Your task to perform on an android device: Go to Maps Image 0: 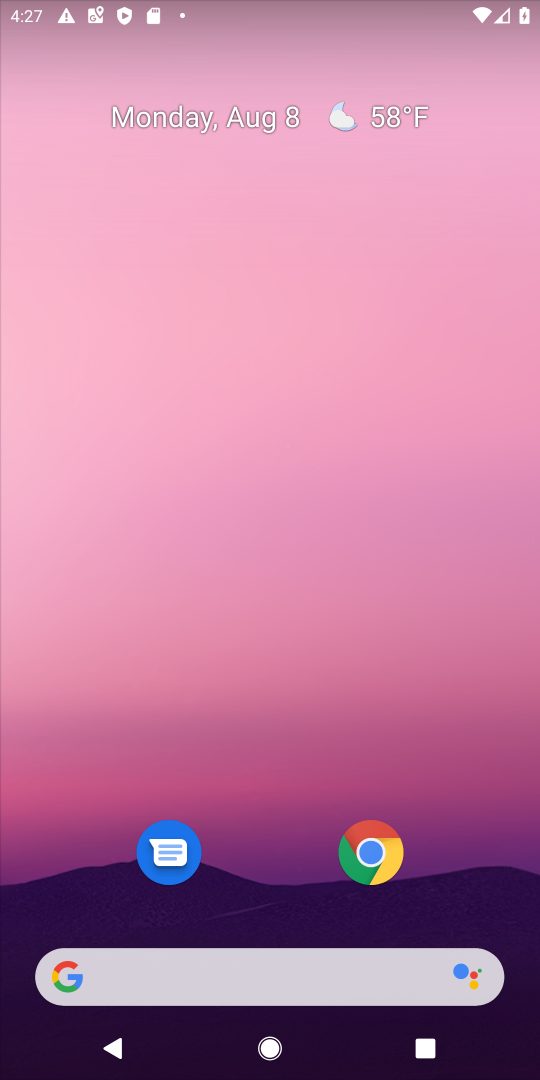
Step 0: drag from (295, 786) to (366, 0)
Your task to perform on an android device: Go to Maps Image 1: 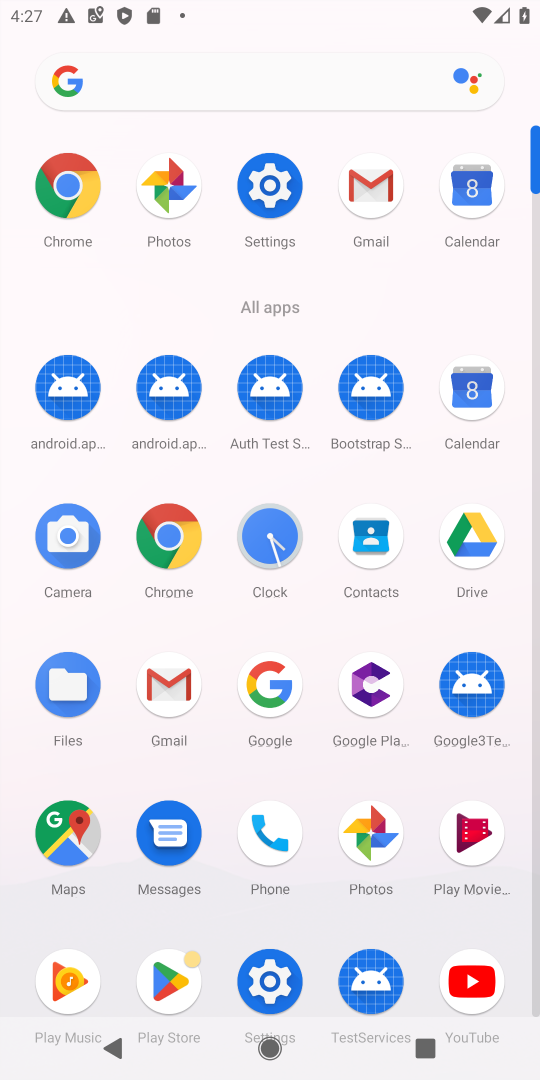
Step 1: click (69, 836)
Your task to perform on an android device: Go to Maps Image 2: 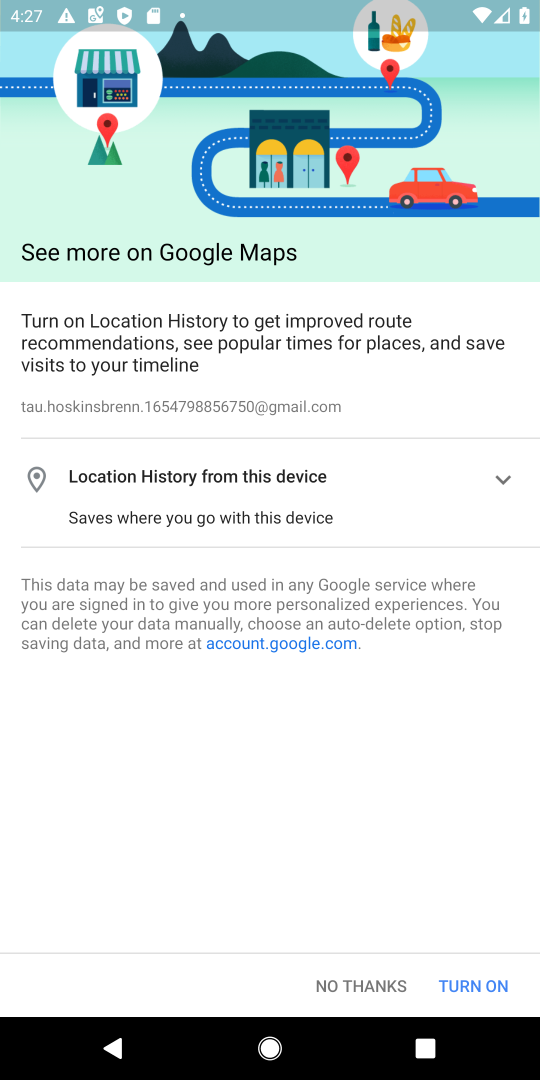
Step 2: click (441, 977)
Your task to perform on an android device: Go to Maps Image 3: 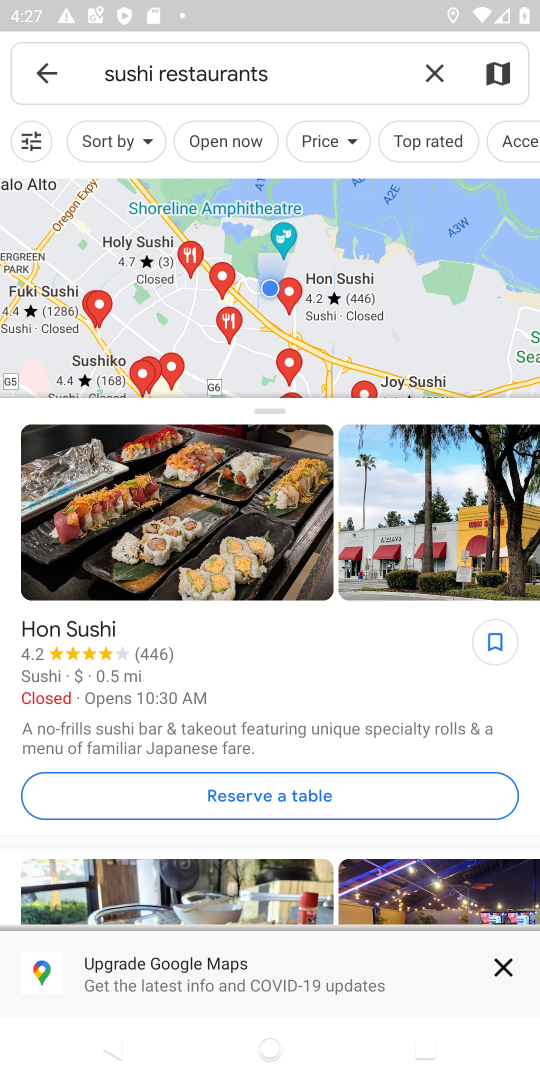
Step 3: task complete